Your task to perform on an android device: Open the calendar app, open the side menu, and click the "Day" option Image 0: 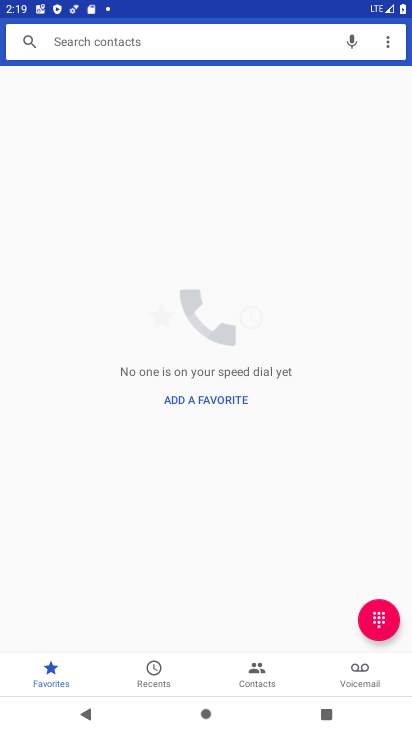
Step 0: press home button
Your task to perform on an android device: Open the calendar app, open the side menu, and click the "Day" option Image 1: 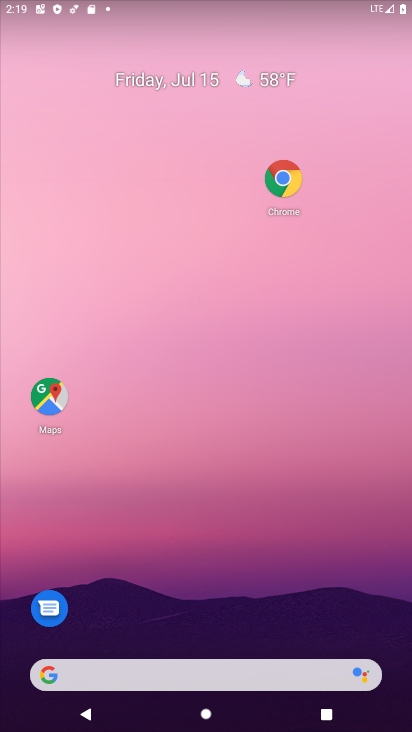
Step 1: drag from (260, 623) to (272, 0)
Your task to perform on an android device: Open the calendar app, open the side menu, and click the "Day" option Image 2: 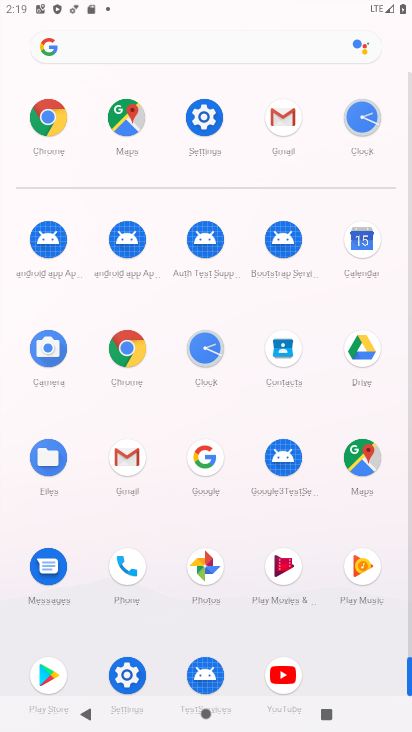
Step 2: click (370, 233)
Your task to perform on an android device: Open the calendar app, open the side menu, and click the "Day" option Image 3: 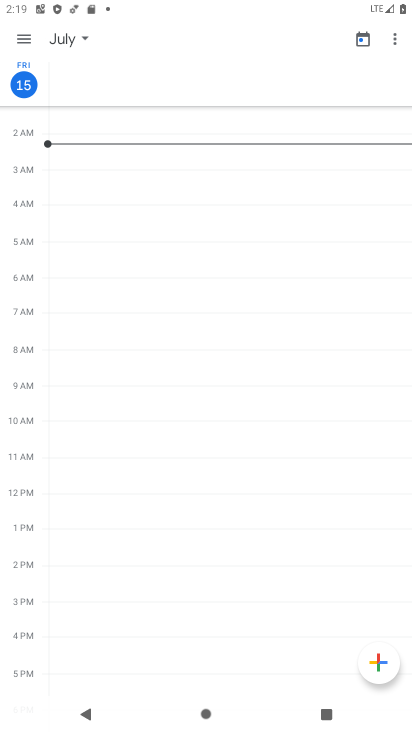
Step 3: click (23, 29)
Your task to perform on an android device: Open the calendar app, open the side menu, and click the "Day" option Image 4: 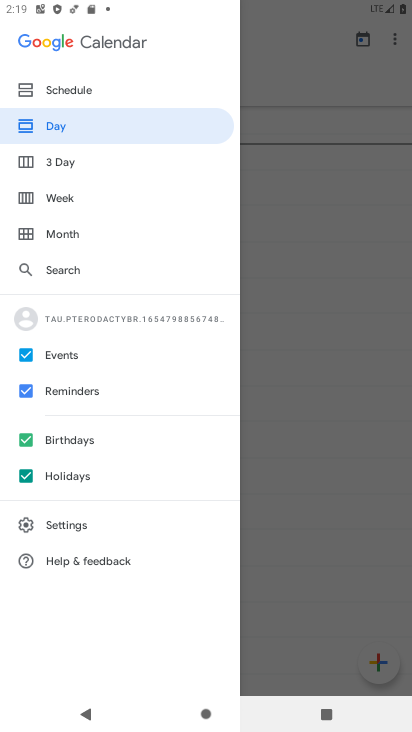
Step 4: click (48, 129)
Your task to perform on an android device: Open the calendar app, open the side menu, and click the "Day" option Image 5: 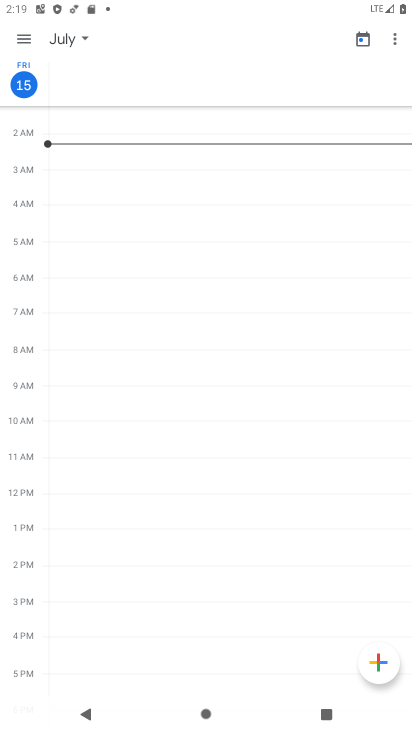
Step 5: task complete